Your task to perform on an android device: Open Android settings Image 0: 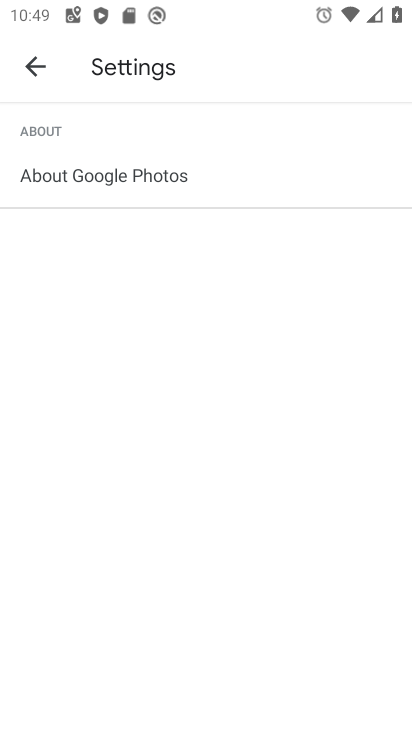
Step 0: press home button
Your task to perform on an android device: Open Android settings Image 1: 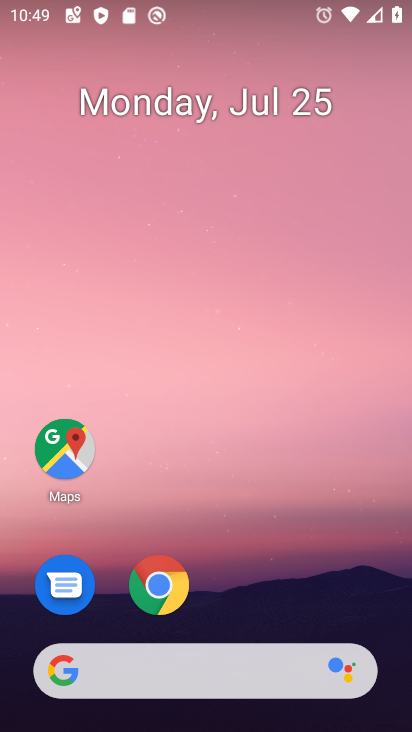
Step 1: drag from (214, 641) to (170, 41)
Your task to perform on an android device: Open Android settings Image 2: 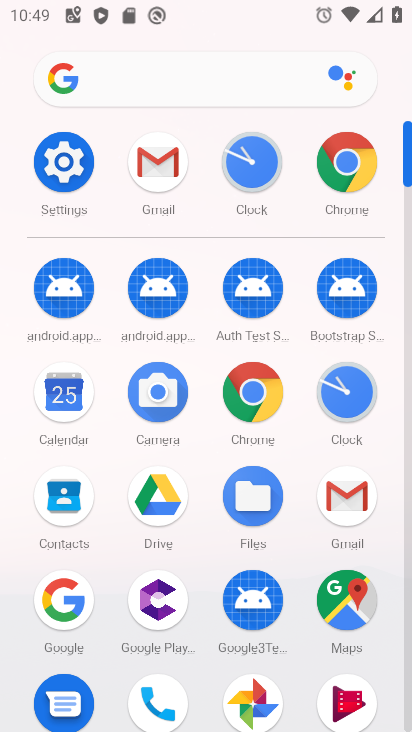
Step 2: click (61, 150)
Your task to perform on an android device: Open Android settings Image 3: 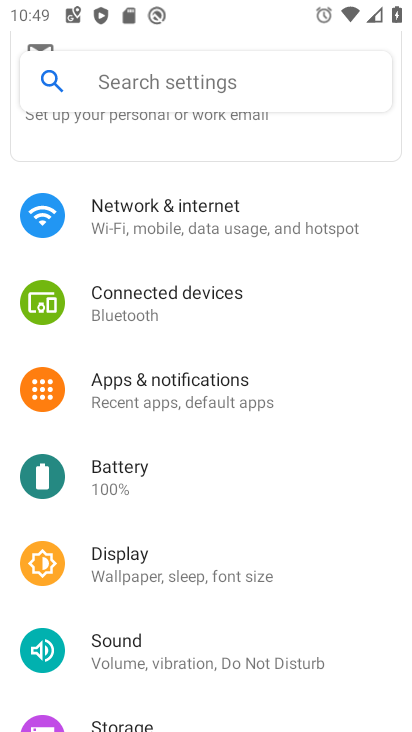
Step 3: drag from (182, 469) to (168, 115)
Your task to perform on an android device: Open Android settings Image 4: 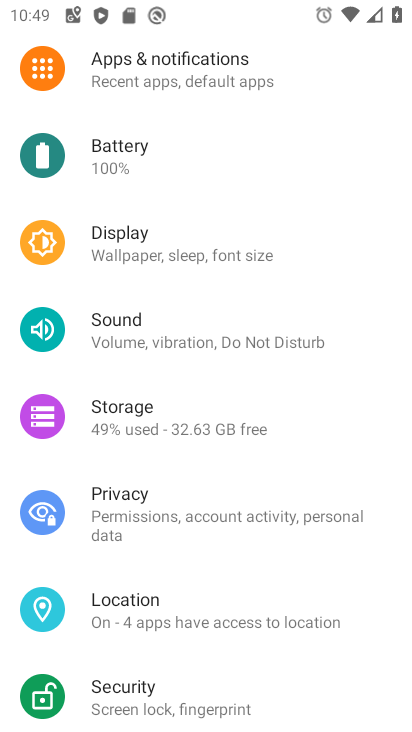
Step 4: click (262, 270)
Your task to perform on an android device: Open Android settings Image 5: 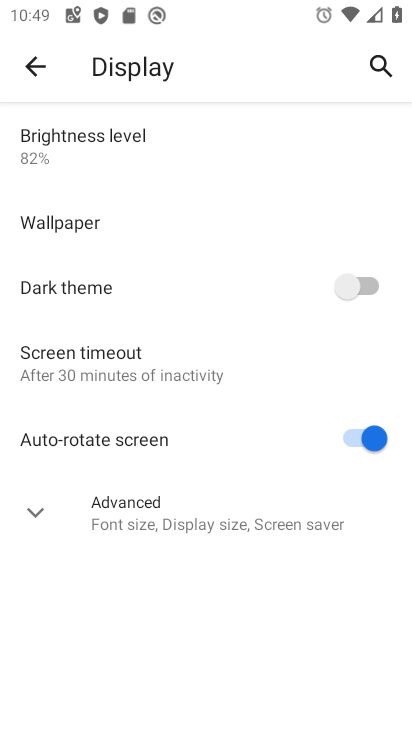
Step 5: task complete